Your task to perform on an android device: toggle priority inbox in the gmail app Image 0: 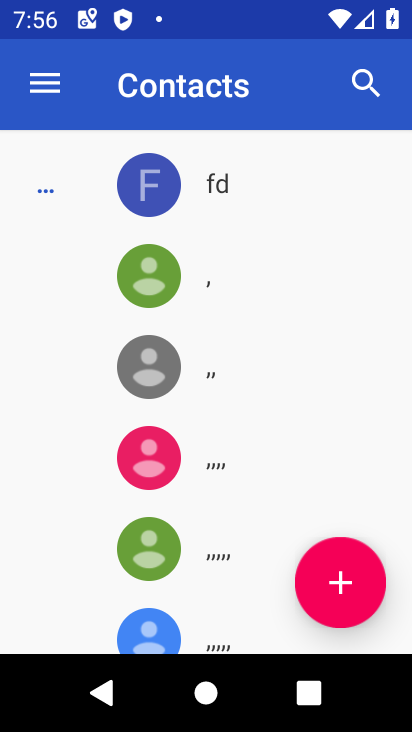
Step 0: press home button
Your task to perform on an android device: toggle priority inbox in the gmail app Image 1: 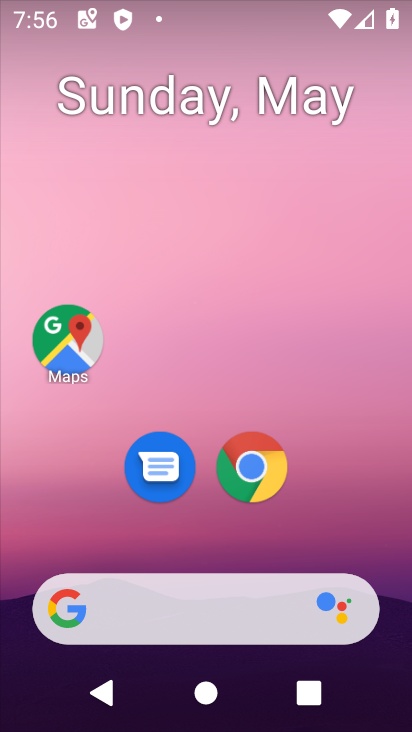
Step 1: drag from (14, 667) to (255, 232)
Your task to perform on an android device: toggle priority inbox in the gmail app Image 2: 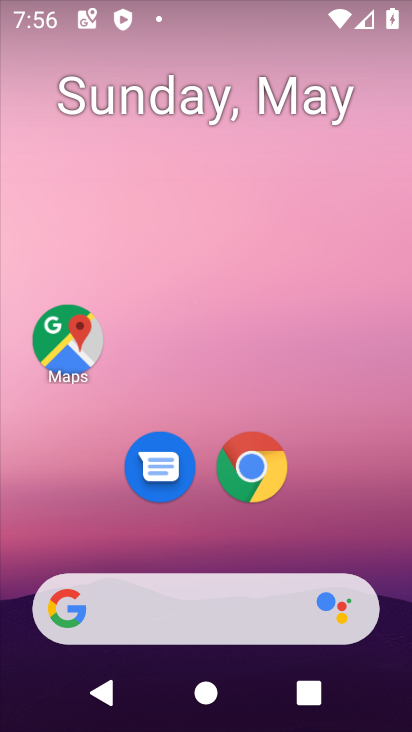
Step 2: drag from (112, 546) to (350, 181)
Your task to perform on an android device: toggle priority inbox in the gmail app Image 3: 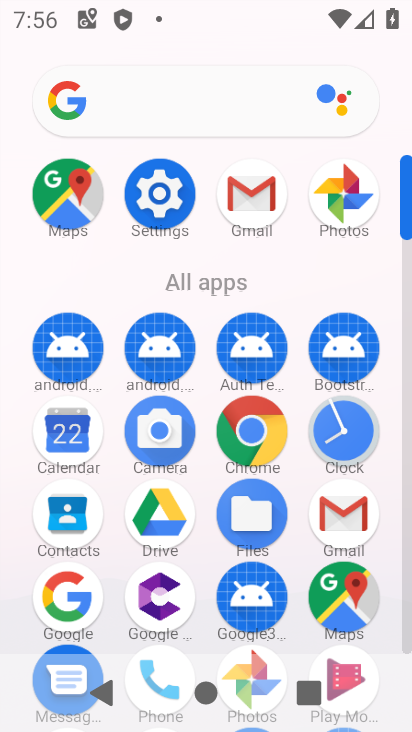
Step 3: click (252, 203)
Your task to perform on an android device: toggle priority inbox in the gmail app Image 4: 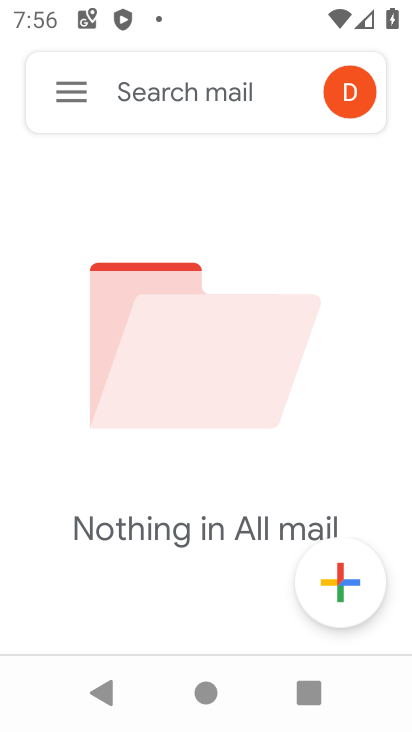
Step 4: click (64, 86)
Your task to perform on an android device: toggle priority inbox in the gmail app Image 5: 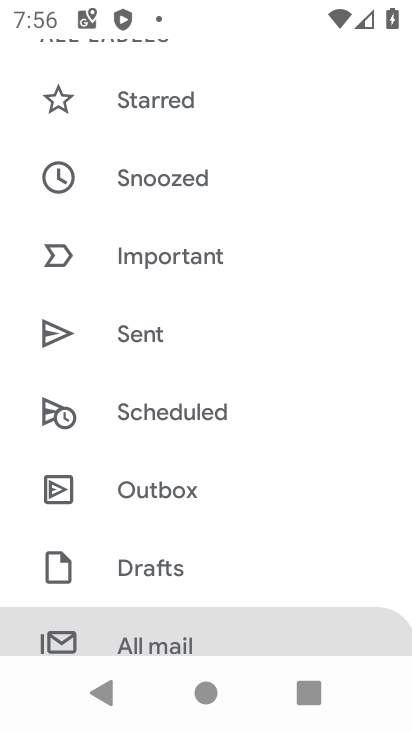
Step 5: drag from (18, 557) to (234, 114)
Your task to perform on an android device: toggle priority inbox in the gmail app Image 6: 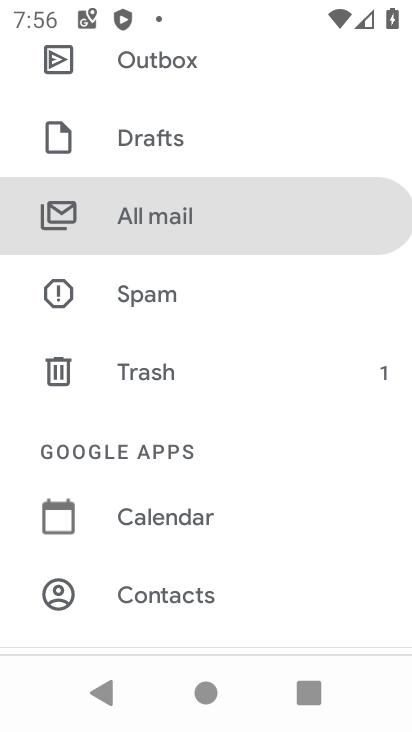
Step 6: drag from (120, 632) to (260, 236)
Your task to perform on an android device: toggle priority inbox in the gmail app Image 7: 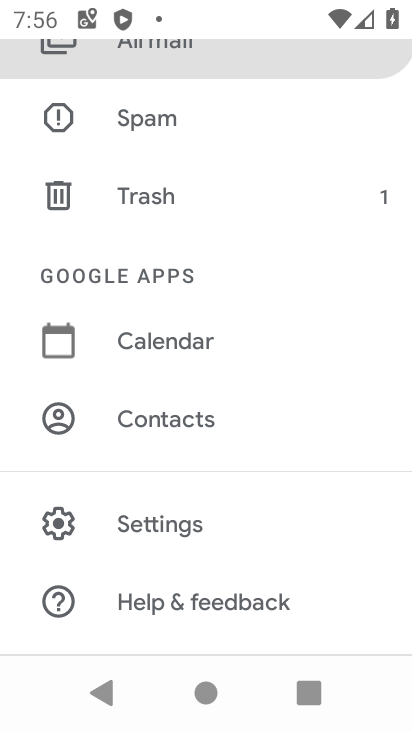
Step 7: click (189, 531)
Your task to perform on an android device: toggle priority inbox in the gmail app Image 8: 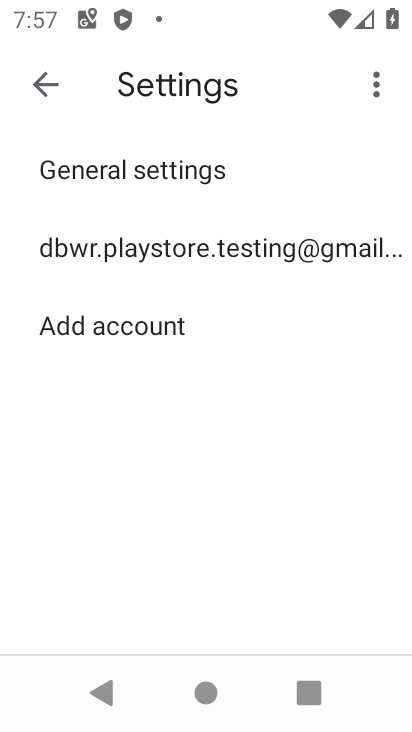
Step 8: click (280, 242)
Your task to perform on an android device: toggle priority inbox in the gmail app Image 9: 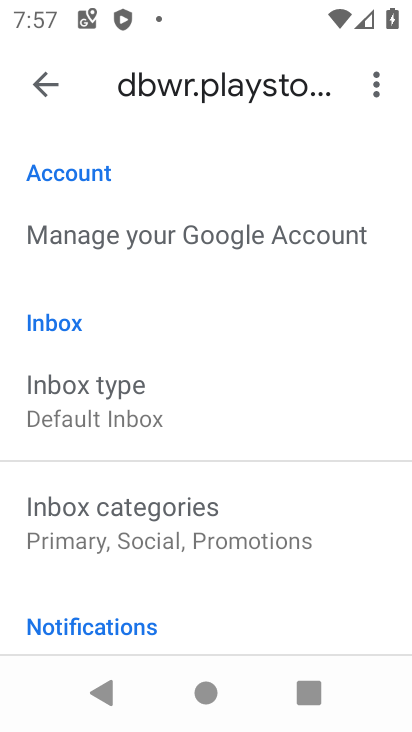
Step 9: click (108, 392)
Your task to perform on an android device: toggle priority inbox in the gmail app Image 10: 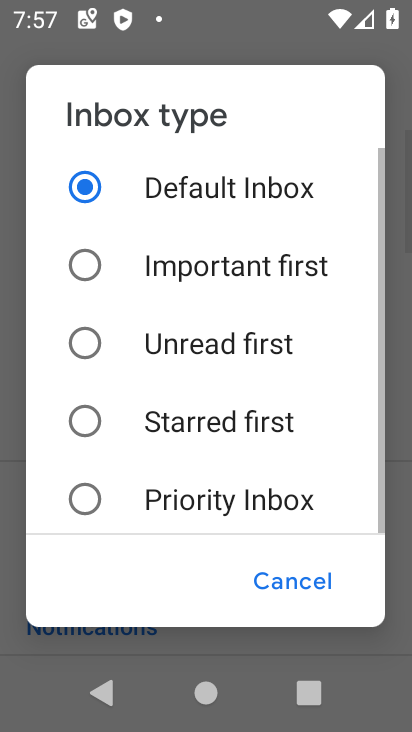
Step 10: click (80, 505)
Your task to perform on an android device: toggle priority inbox in the gmail app Image 11: 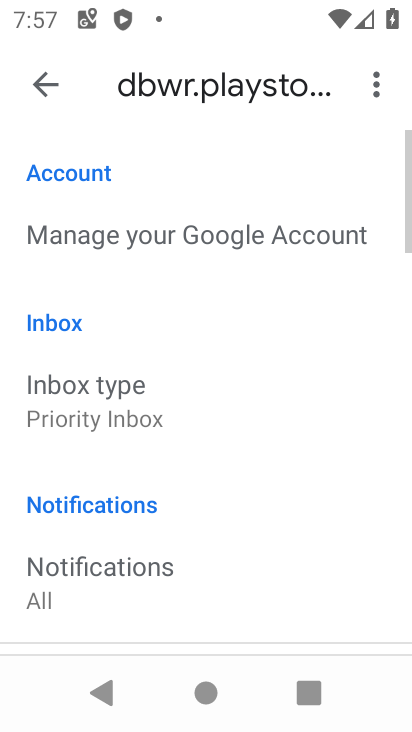
Step 11: task complete